Your task to perform on an android device: open app "Indeed Job Search" Image 0: 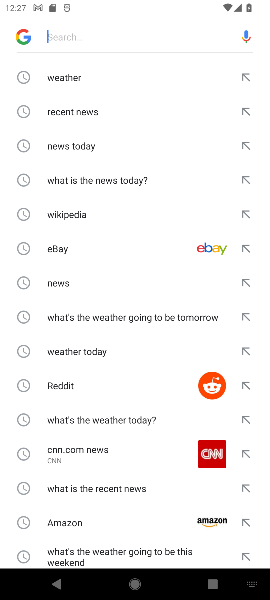
Step 0: press home button
Your task to perform on an android device: open app "Indeed Job Search" Image 1: 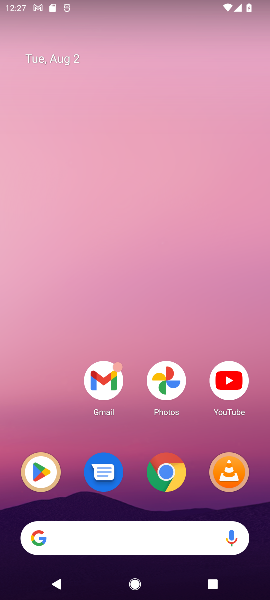
Step 1: click (48, 464)
Your task to perform on an android device: open app "Indeed Job Search" Image 2: 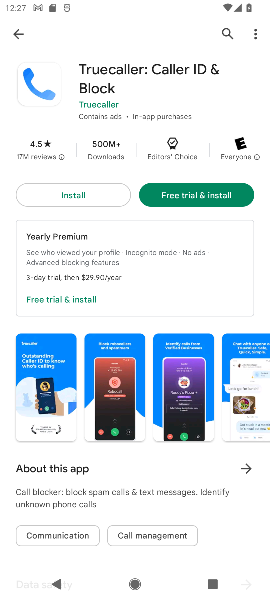
Step 2: click (232, 31)
Your task to perform on an android device: open app "Indeed Job Search" Image 3: 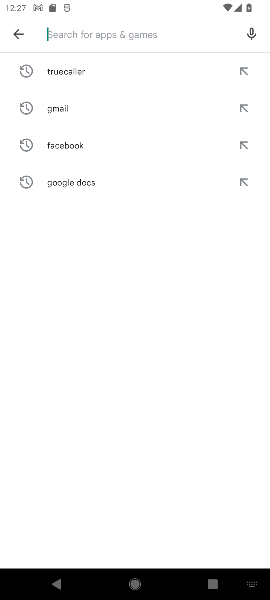
Step 3: type "indeed job search "
Your task to perform on an android device: open app "Indeed Job Search" Image 4: 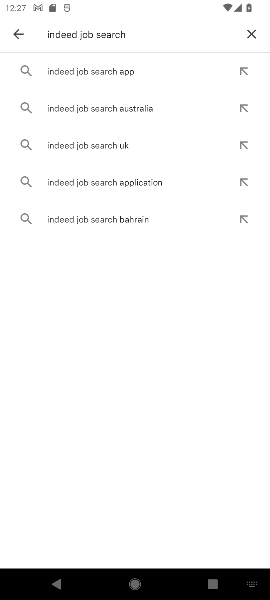
Step 4: click (86, 72)
Your task to perform on an android device: open app "Indeed Job Search" Image 5: 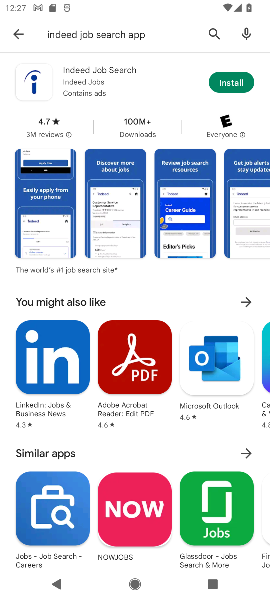
Step 5: click (68, 74)
Your task to perform on an android device: open app "Indeed Job Search" Image 6: 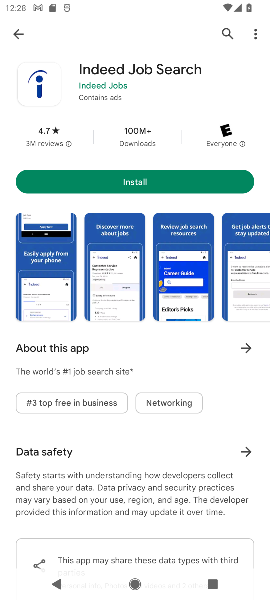
Step 6: task complete